Your task to perform on an android device: check out phone information Image 0: 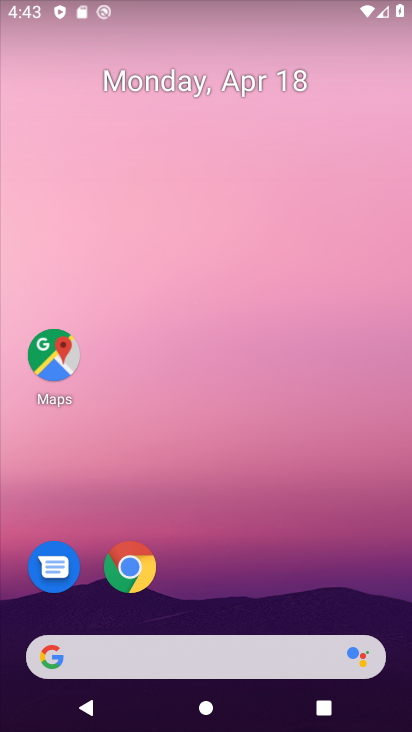
Step 0: drag from (211, 676) to (279, 176)
Your task to perform on an android device: check out phone information Image 1: 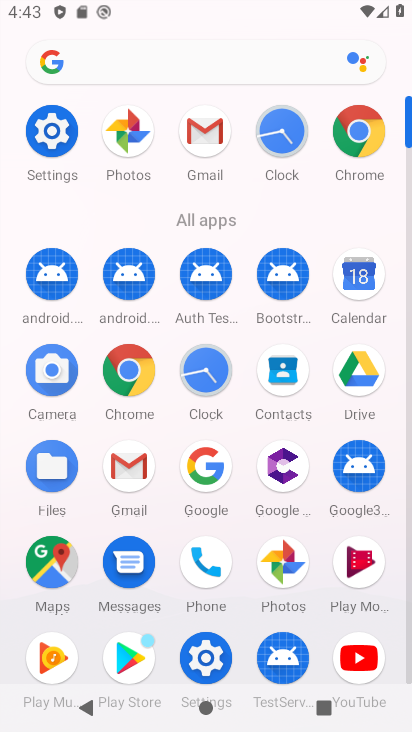
Step 1: click (212, 561)
Your task to perform on an android device: check out phone information Image 2: 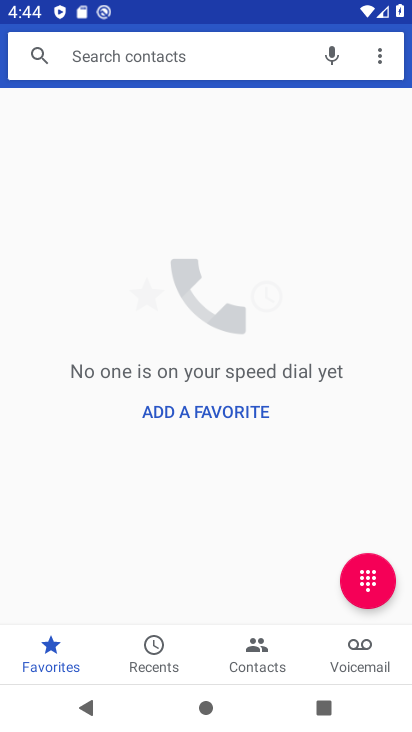
Step 2: click (370, 45)
Your task to perform on an android device: check out phone information Image 3: 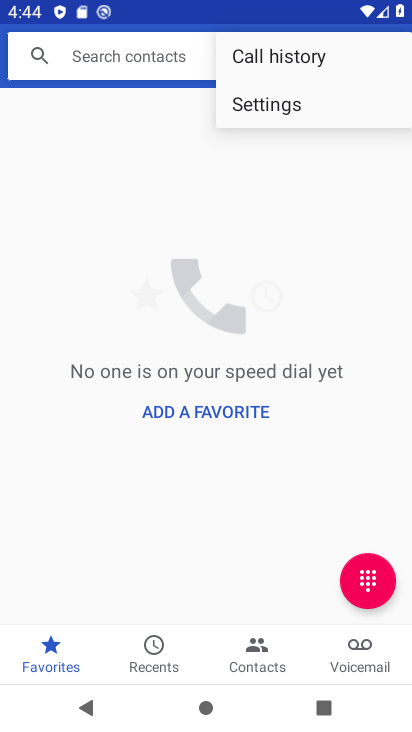
Step 3: click (294, 96)
Your task to perform on an android device: check out phone information Image 4: 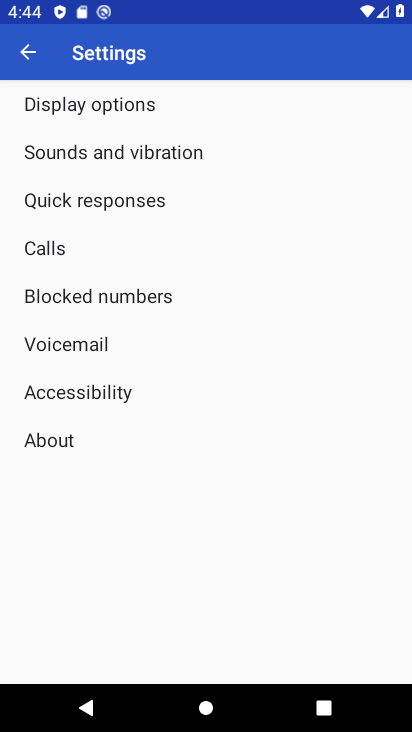
Step 4: click (52, 443)
Your task to perform on an android device: check out phone information Image 5: 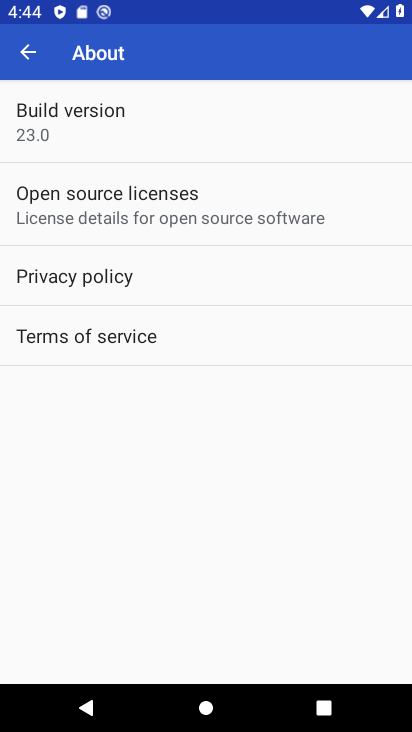
Step 5: task complete